Your task to perform on an android device: Turn off the flashlight Image 0: 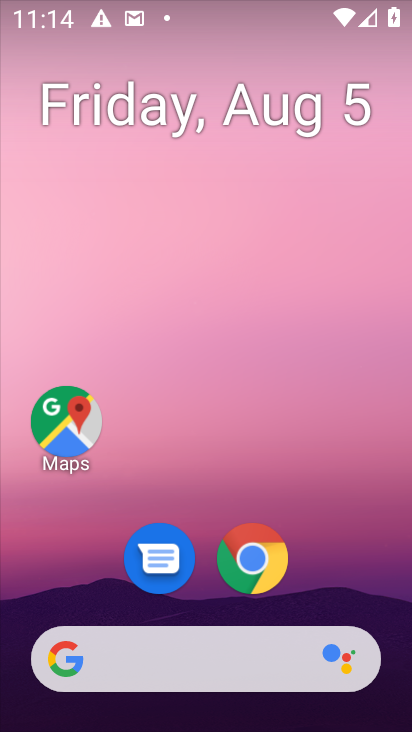
Step 0: press home button
Your task to perform on an android device: Turn off the flashlight Image 1: 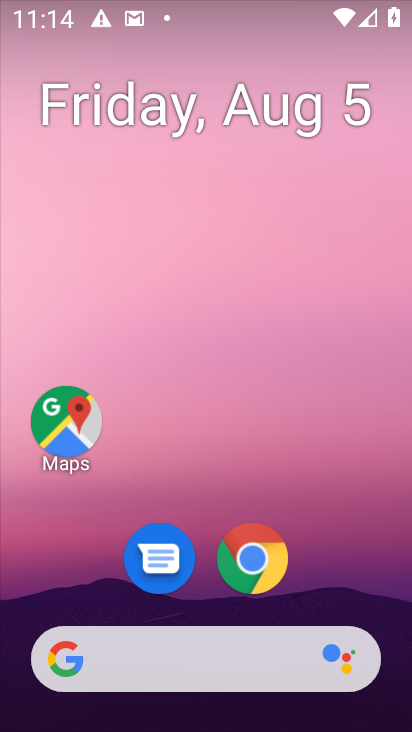
Step 1: drag from (247, 3) to (265, 377)
Your task to perform on an android device: Turn off the flashlight Image 2: 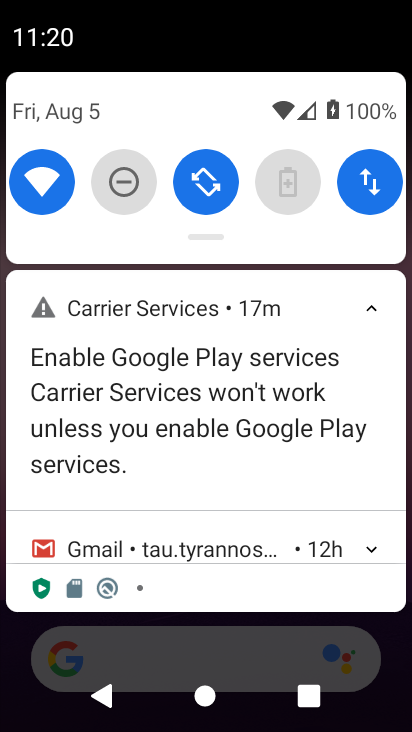
Step 2: drag from (244, 99) to (246, 456)
Your task to perform on an android device: Turn off the flashlight Image 3: 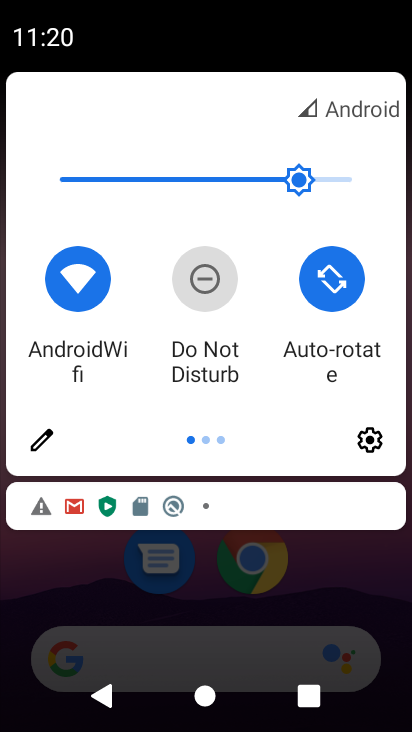
Step 3: click (54, 447)
Your task to perform on an android device: Turn off the flashlight Image 4: 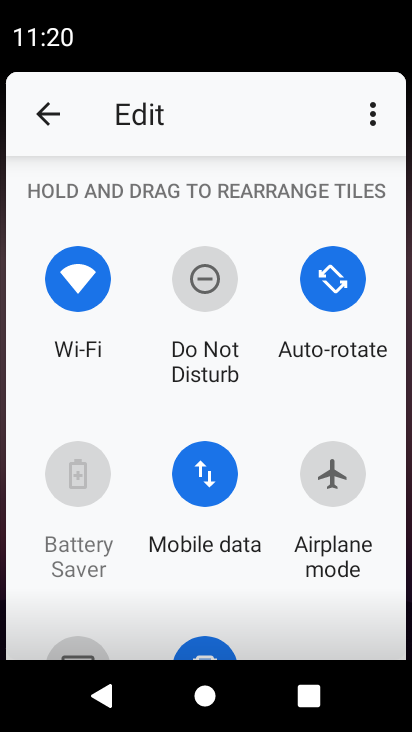
Step 4: task complete